Your task to perform on an android device: Open Chrome and go to settings Image 0: 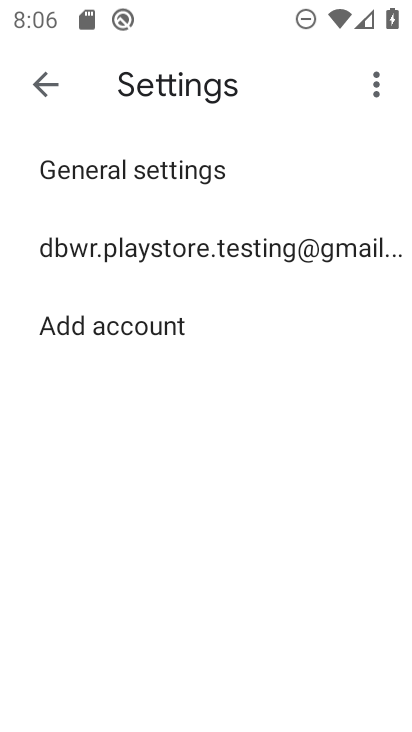
Step 0: press back button
Your task to perform on an android device: Open Chrome and go to settings Image 1: 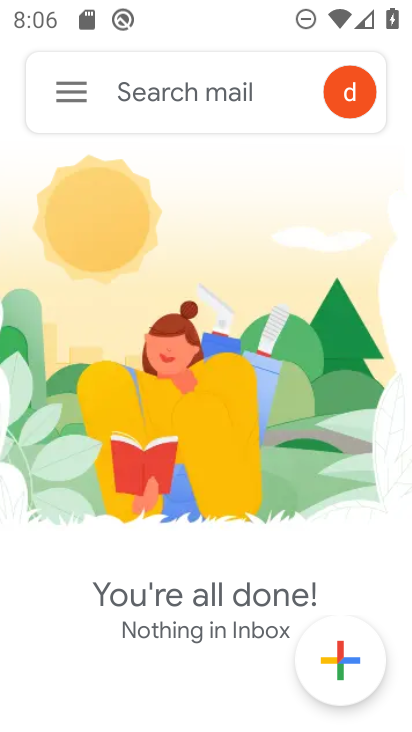
Step 1: press home button
Your task to perform on an android device: Open Chrome and go to settings Image 2: 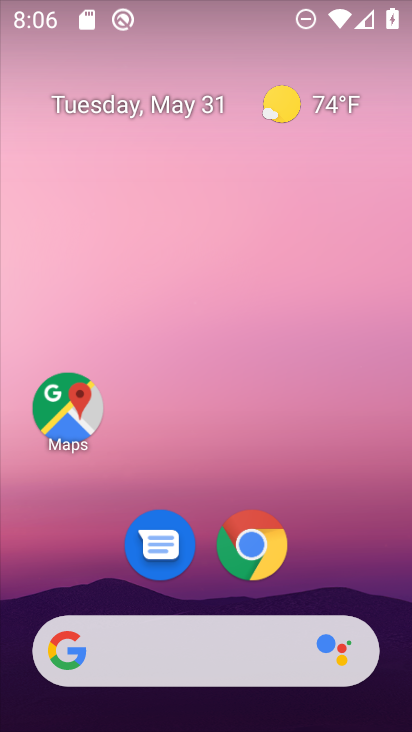
Step 2: drag from (339, 551) to (205, 4)
Your task to perform on an android device: Open Chrome and go to settings Image 3: 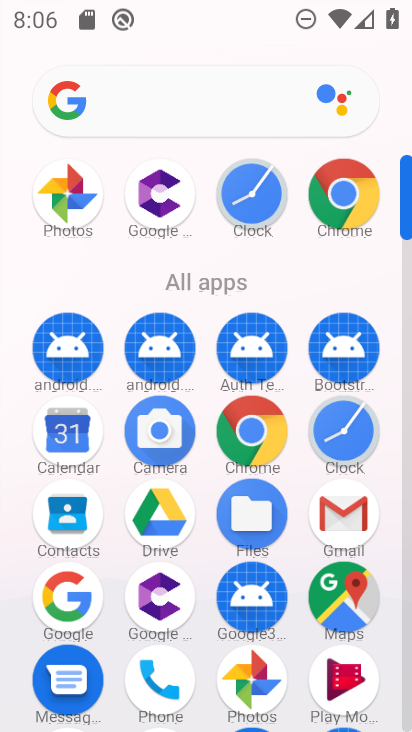
Step 3: drag from (8, 573) to (4, 245)
Your task to perform on an android device: Open Chrome and go to settings Image 4: 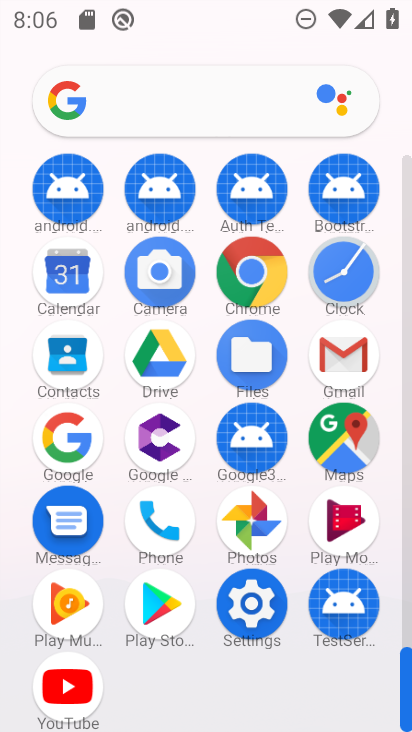
Step 4: click (245, 259)
Your task to perform on an android device: Open Chrome and go to settings Image 5: 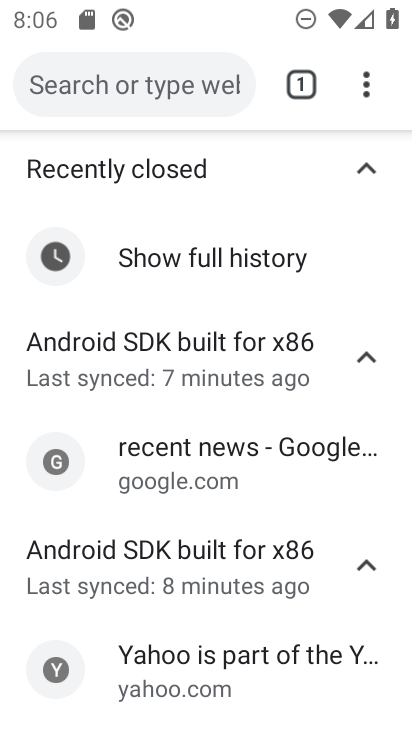
Step 5: task complete